Your task to perform on an android device: turn on location history Image 0: 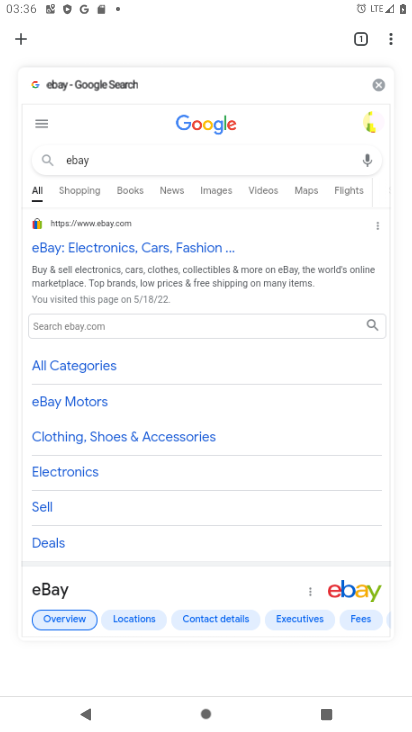
Step 0: press home button
Your task to perform on an android device: turn on location history Image 1: 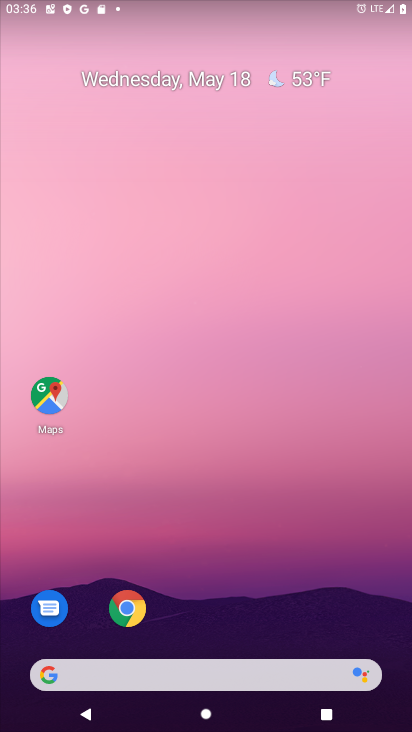
Step 1: click (45, 403)
Your task to perform on an android device: turn on location history Image 2: 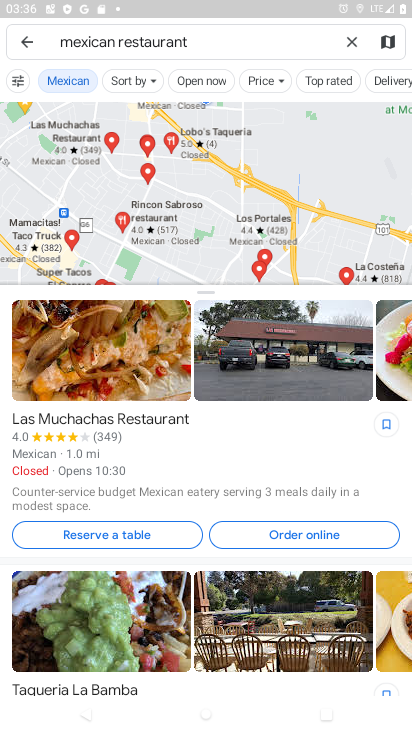
Step 2: click (352, 41)
Your task to perform on an android device: turn on location history Image 3: 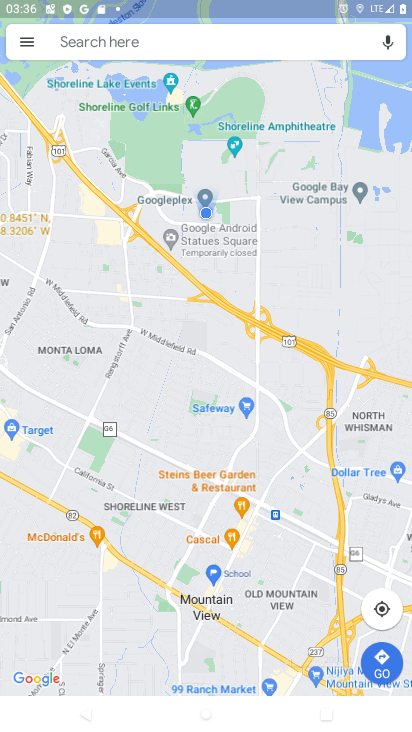
Step 3: click (28, 46)
Your task to perform on an android device: turn on location history Image 4: 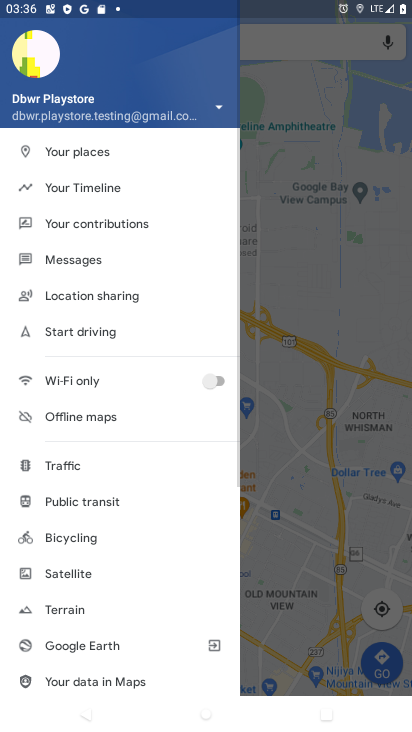
Step 4: click (86, 190)
Your task to perform on an android device: turn on location history Image 5: 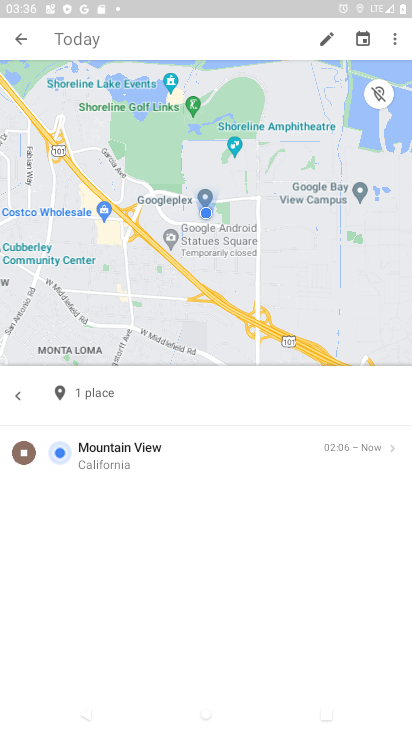
Step 5: click (397, 43)
Your task to perform on an android device: turn on location history Image 6: 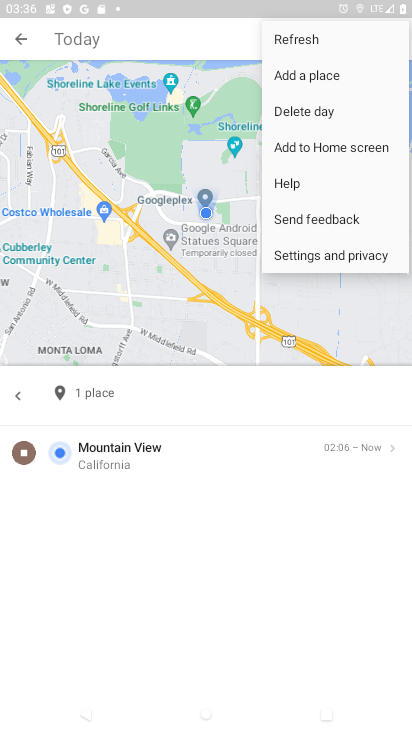
Step 6: click (322, 258)
Your task to perform on an android device: turn on location history Image 7: 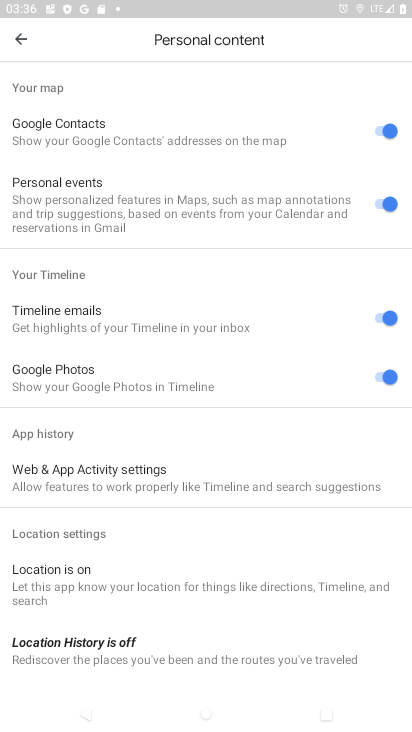
Step 7: click (99, 646)
Your task to perform on an android device: turn on location history Image 8: 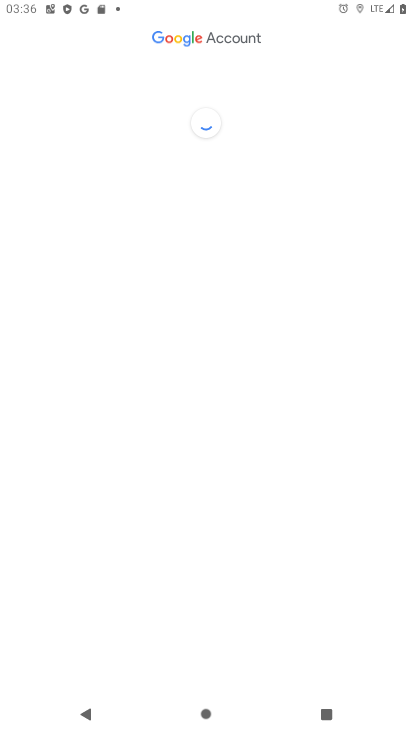
Step 8: click (99, 646)
Your task to perform on an android device: turn on location history Image 9: 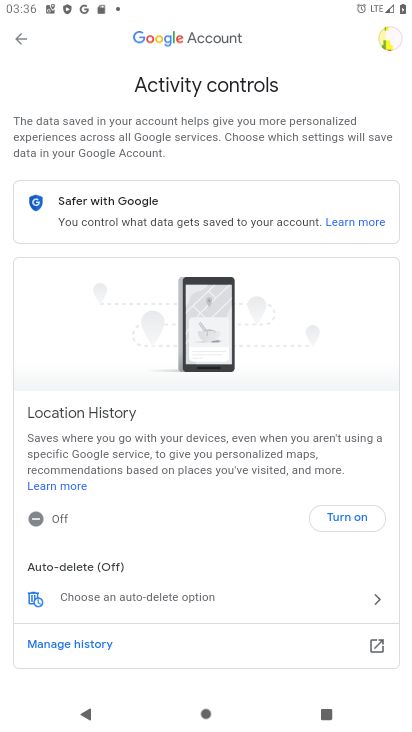
Step 9: drag from (237, 442) to (270, 281)
Your task to perform on an android device: turn on location history Image 10: 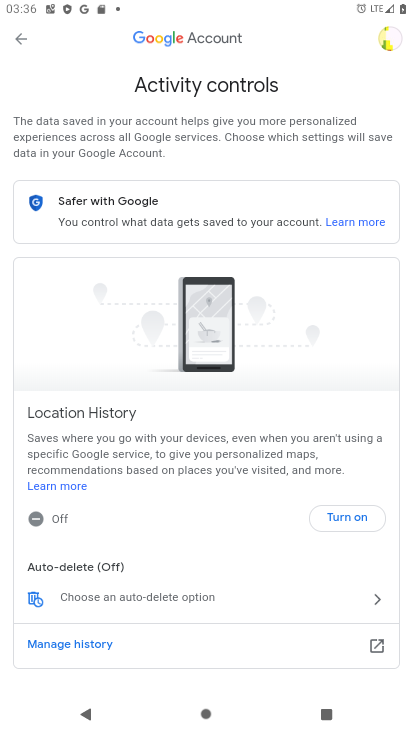
Step 10: click (360, 511)
Your task to perform on an android device: turn on location history Image 11: 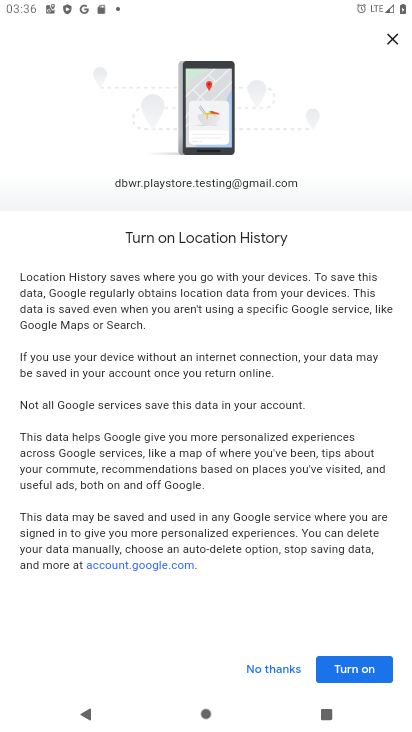
Step 11: drag from (296, 533) to (333, 364)
Your task to perform on an android device: turn on location history Image 12: 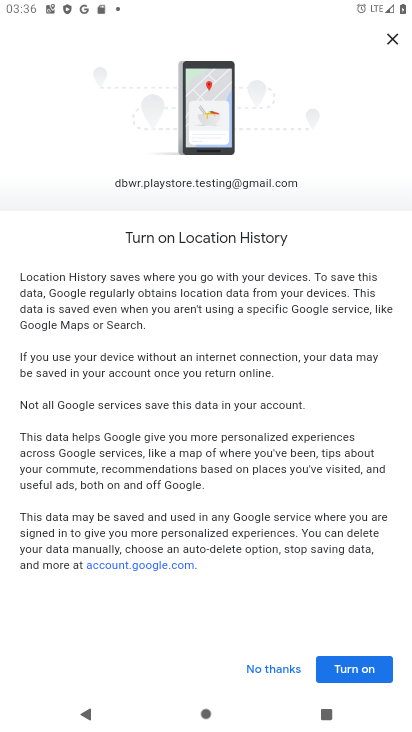
Step 12: click (351, 679)
Your task to perform on an android device: turn on location history Image 13: 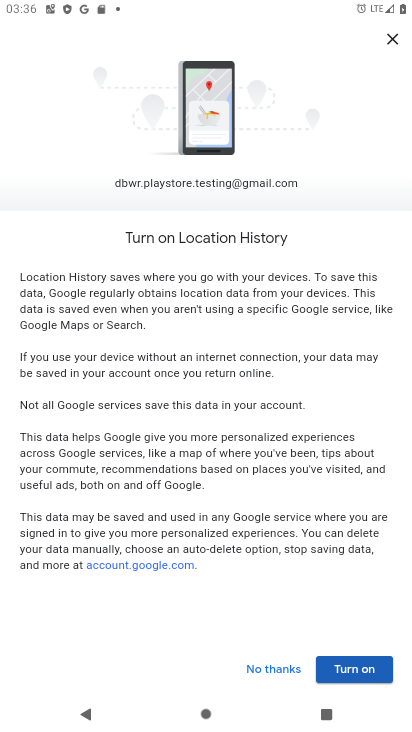
Step 13: click (355, 674)
Your task to perform on an android device: turn on location history Image 14: 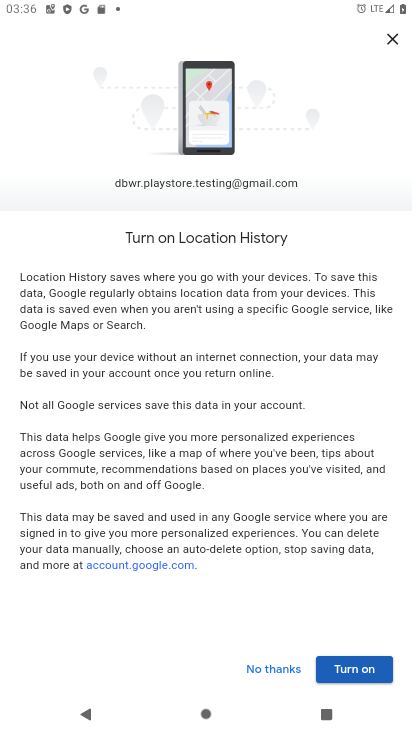
Step 14: click (356, 672)
Your task to perform on an android device: turn on location history Image 15: 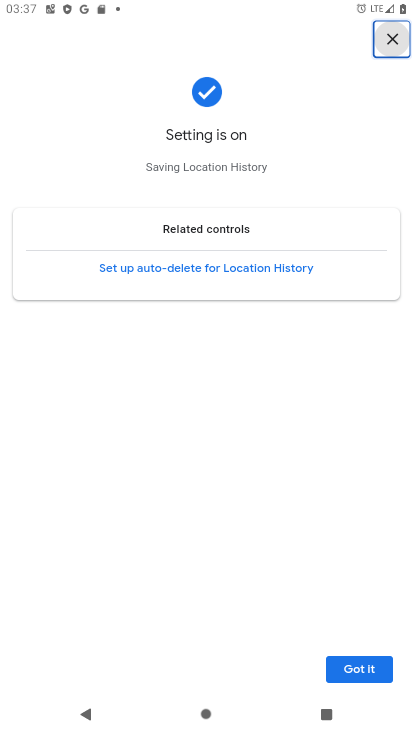
Step 15: click (366, 672)
Your task to perform on an android device: turn on location history Image 16: 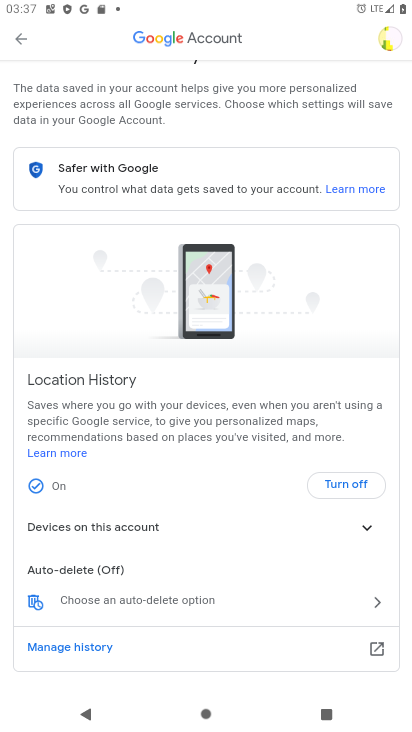
Step 16: task complete